Your task to perform on an android device: refresh tabs in the chrome app Image 0: 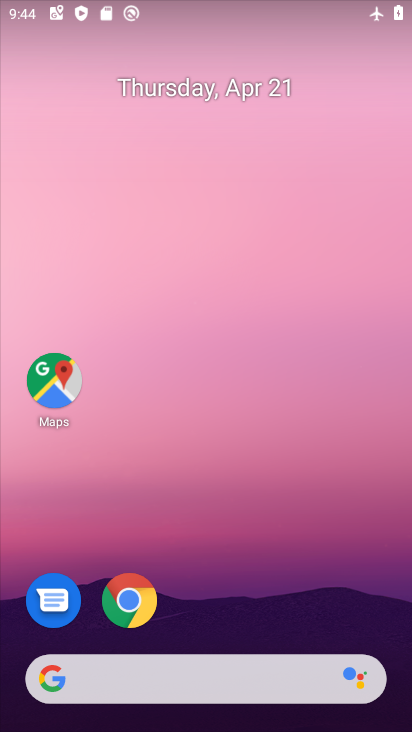
Step 0: click (129, 596)
Your task to perform on an android device: refresh tabs in the chrome app Image 1: 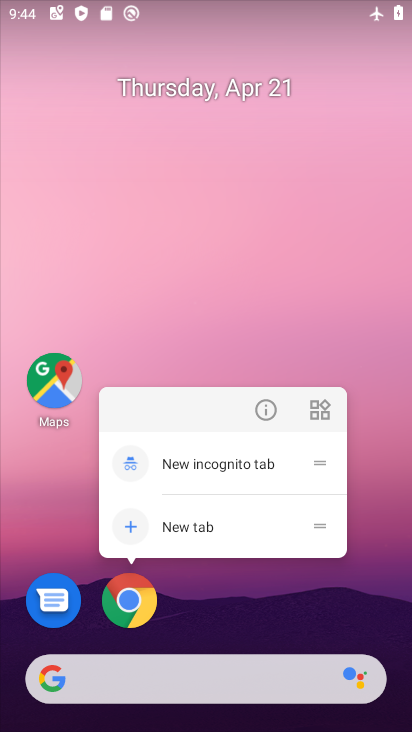
Step 1: click (199, 596)
Your task to perform on an android device: refresh tabs in the chrome app Image 2: 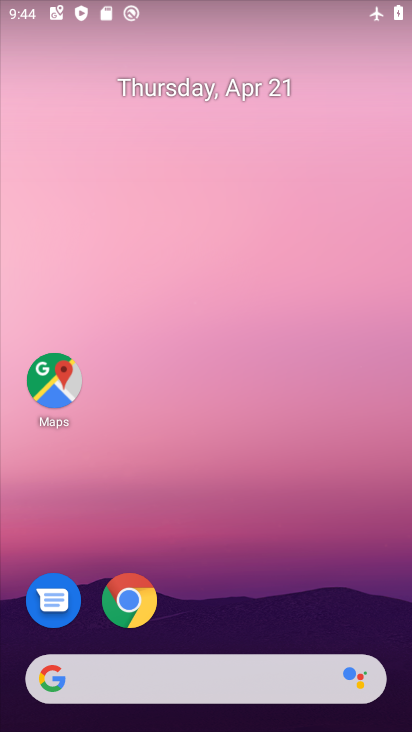
Step 2: click (129, 598)
Your task to perform on an android device: refresh tabs in the chrome app Image 3: 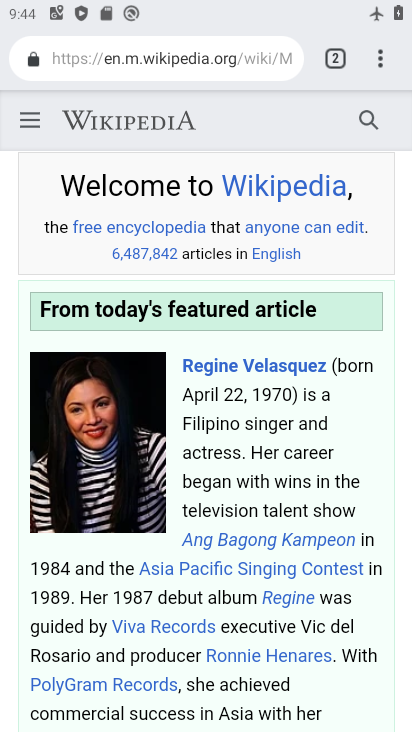
Step 3: click (377, 60)
Your task to perform on an android device: refresh tabs in the chrome app Image 4: 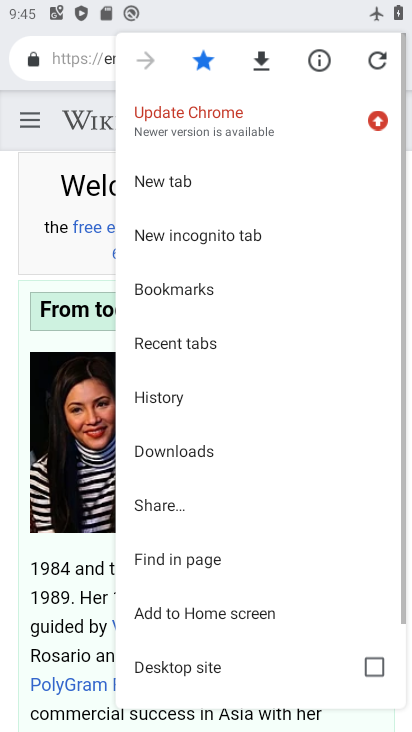
Step 4: click (377, 60)
Your task to perform on an android device: refresh tabs in the chrome app Image 5: 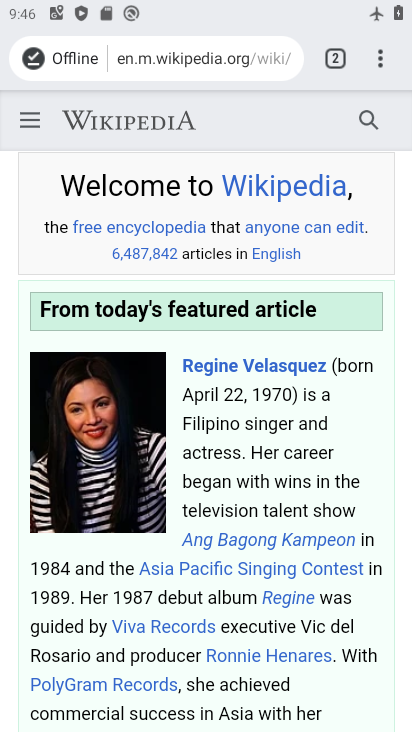
Step 5: task complete